Your task to perform on an android device: Open Google Maps Image 0: 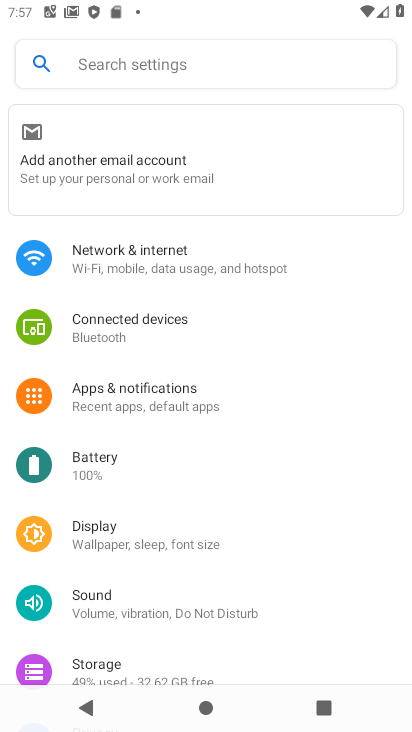
Step 0: press back button
Your task to perform on an android device: Open Google Maps Image 1: 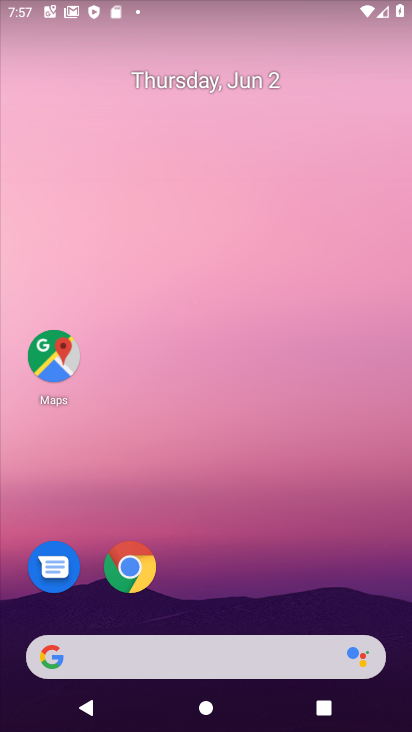
Step 1: click (55, 355)
Your task to perform on an android device: Open Google Maps Image 2: 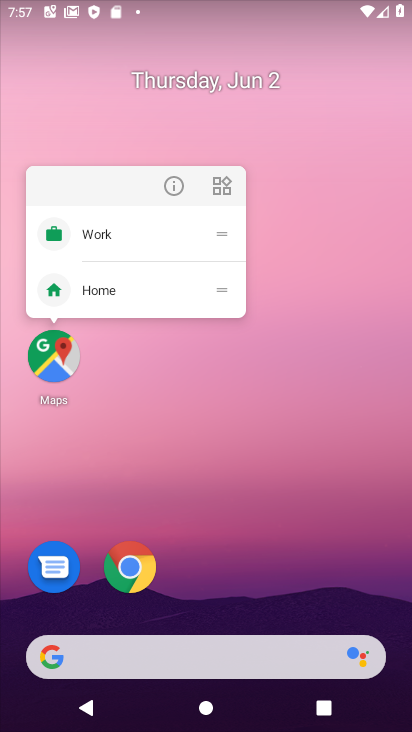
Step 2: click (52, 360)
Your task to perform on an android device: Open Google Maps Image 3: 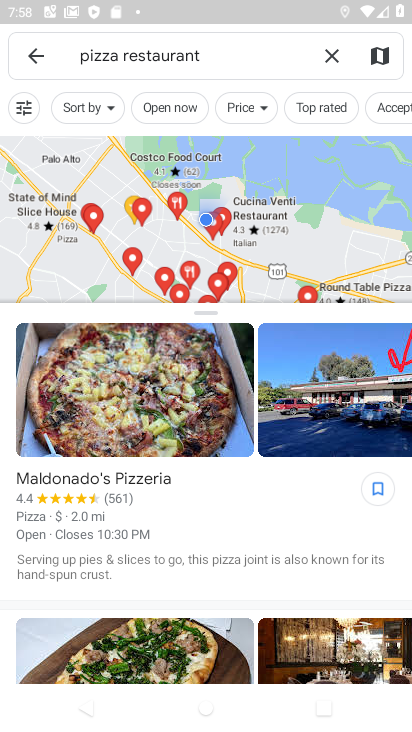
Step 3: click (325, 55)
Your task to perform on an android device: Open Google Maps Image 4: 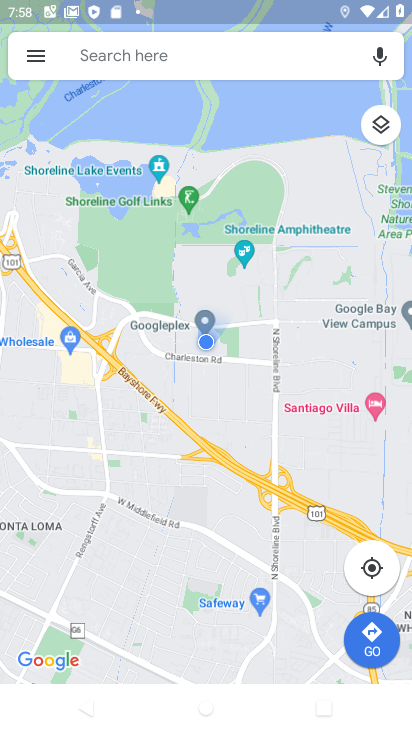
Step 4: task complete